Your task to perform on an android device: Go to Google maps Image 0: 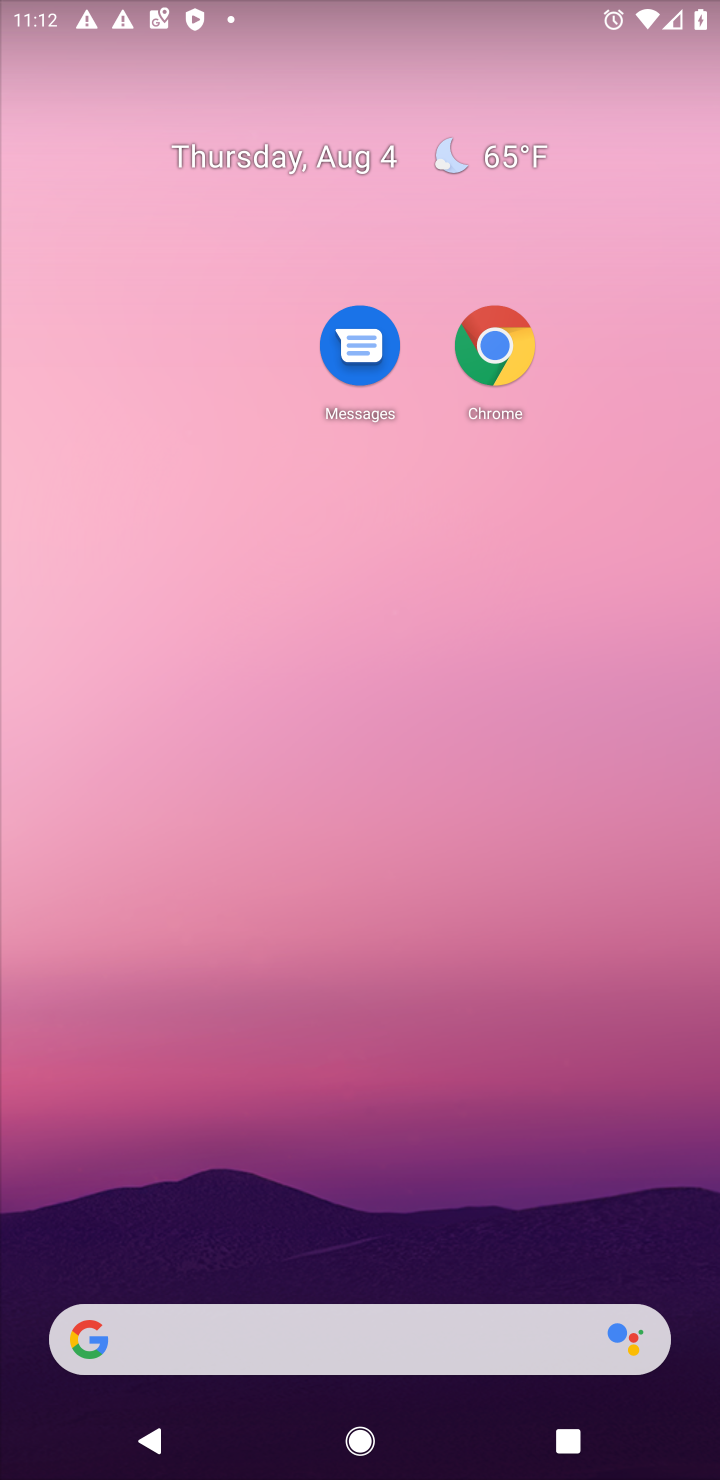
Step 0: drag from (383, 1220) to (414, 258)
Your task to perform on an android device: Go to Google maps Image 1: 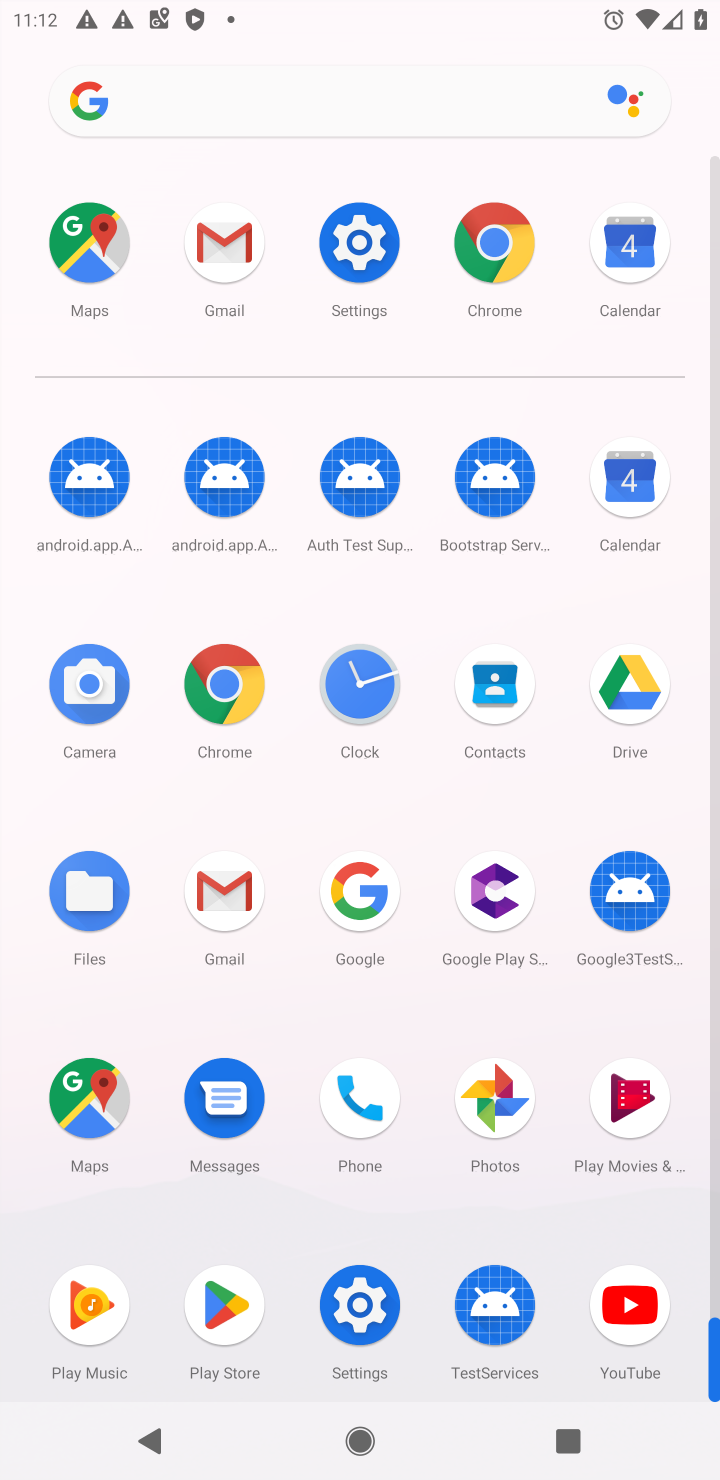
Step 1: click (93, 1106)
Your task to perform on an android device: Go to Google maps Image 2: 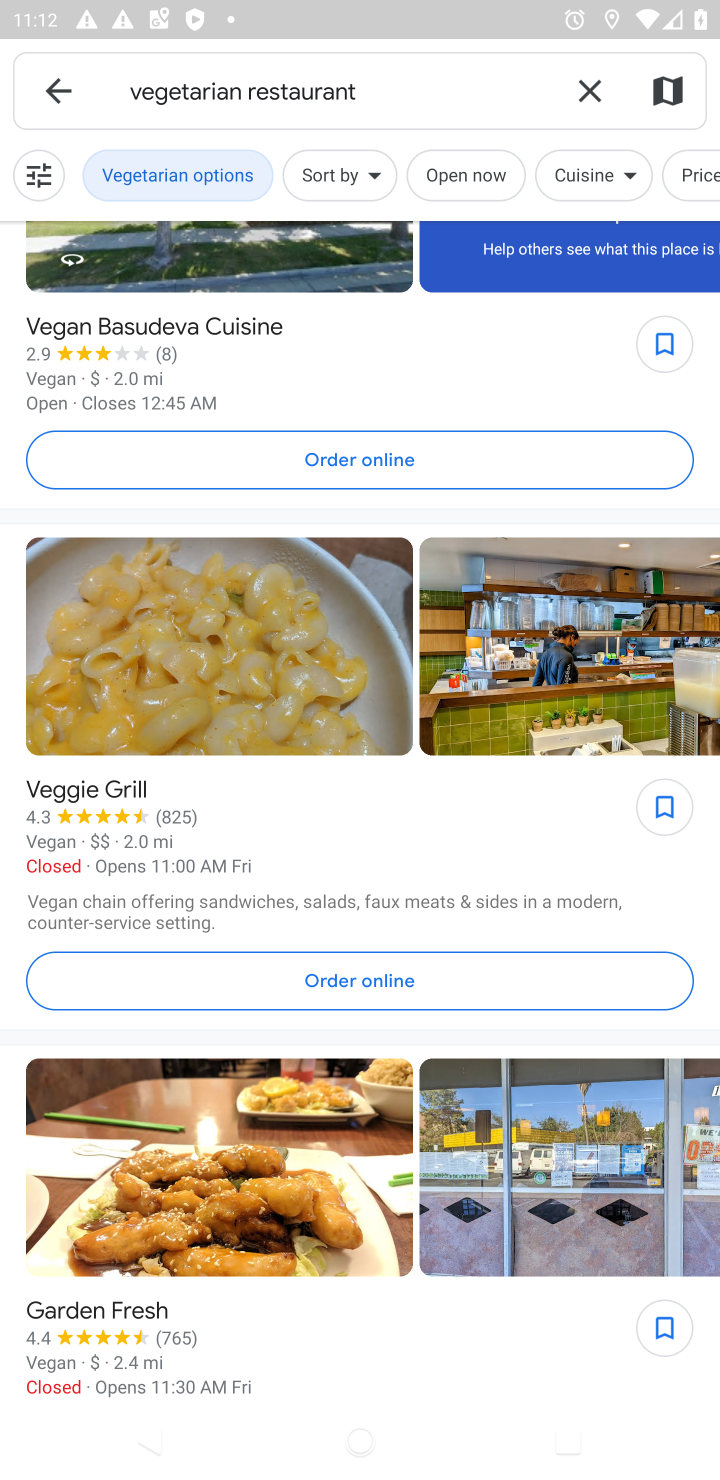
Step 2: task complete